Your task to perform on an android device: Turn off the flashlight Image 0: 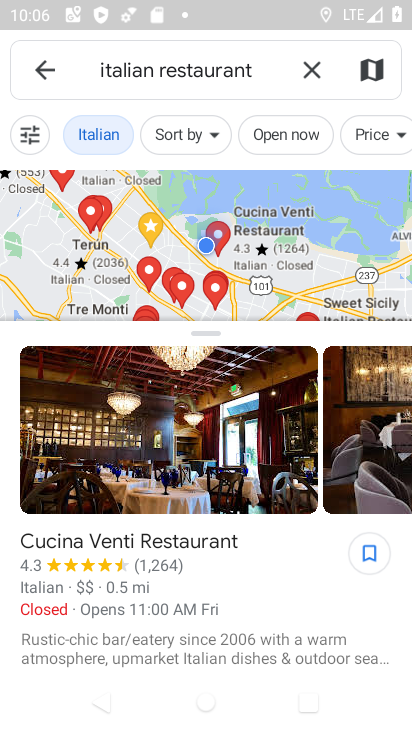
Step 0: press back button
Your task to perform on an android device: Turn off the flashlight Image 1: 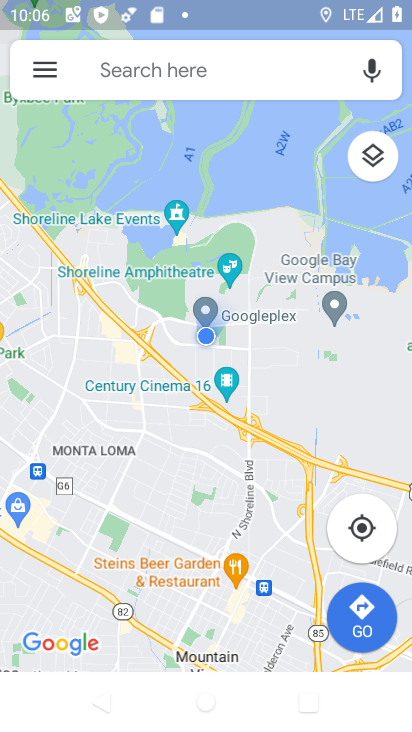
Step 1: press back button
Your task to perform on an android device: Turn off the flashlight Image 2: 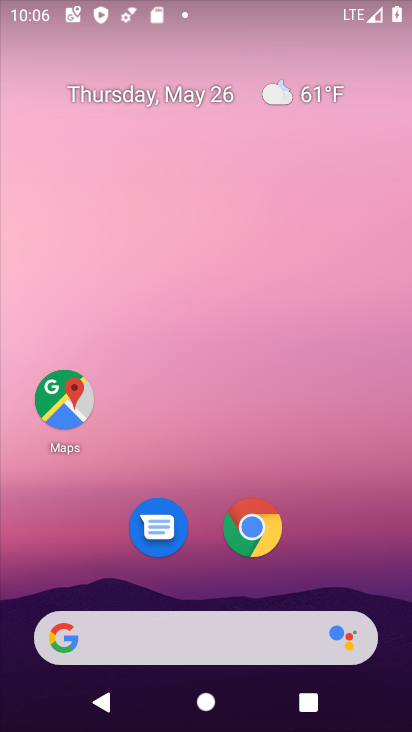
Step 2: drag from (114, 544) to (257, 64)
Your task to perform on an android device: Turn off the flashlight Image 3: 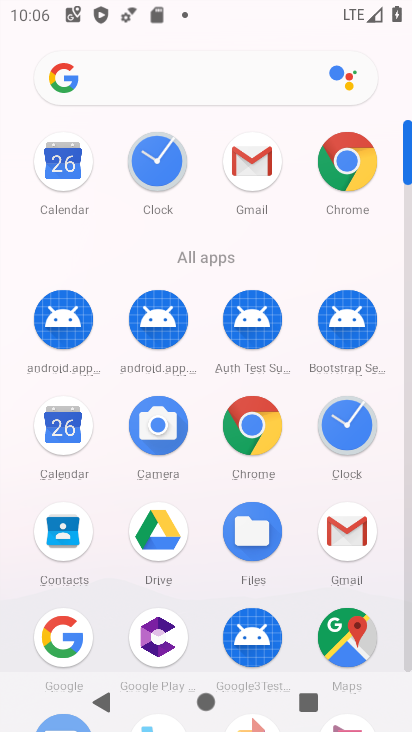
Step 3: drag from (197, 612) to (237, 153)
Your task to perform on an android device: Turn off the flashlight Image 4: 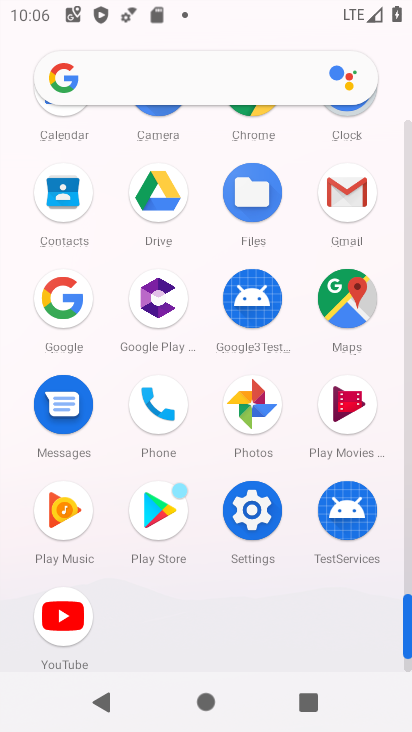
Step 4: click (249, 513)
Your task to perform on an android device: Turn off the flashlight Image 5: 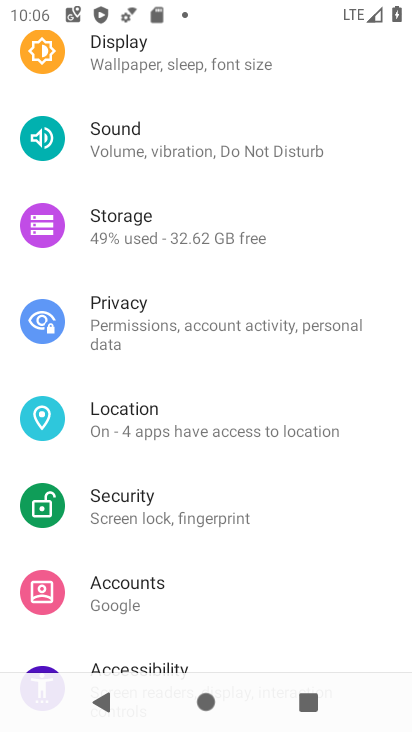
Step 5: drag from (209, 186) to (180, 526)
Your task to perform on an android device: Turn off the flashlight Image 6: 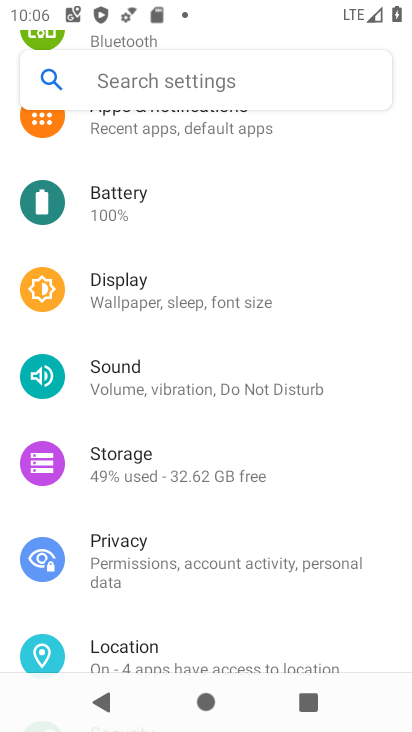
Step 6: click (173, 77)
Your task to perform on an android device: Turn off the flashlight Image 7: 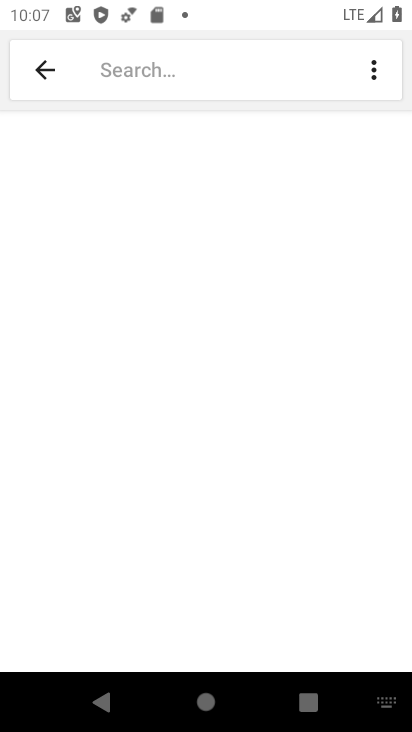
Step 7: type "flashlight"
Your task to perform on an android device: Turn off the flashlight Image 8: 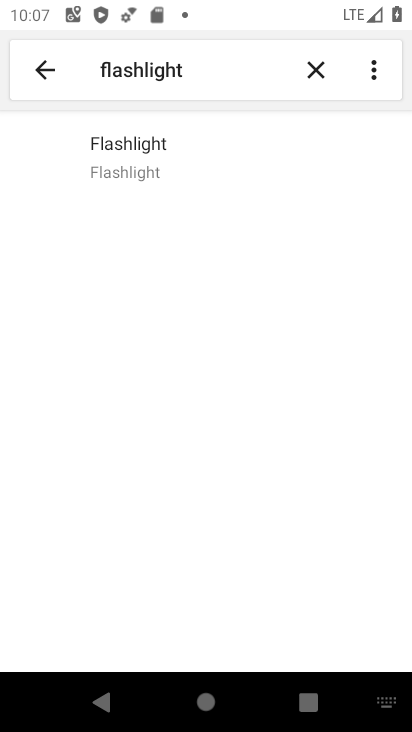
Step 8: click (121, 158)
Your task to perform on an android device: Turn off the flashlight Image 9: 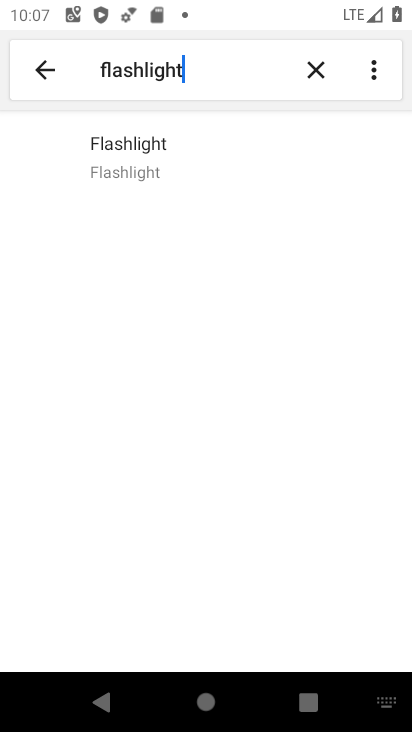
Step 9: task complete